Your task to perform on an android device: change timer sound Image 0: 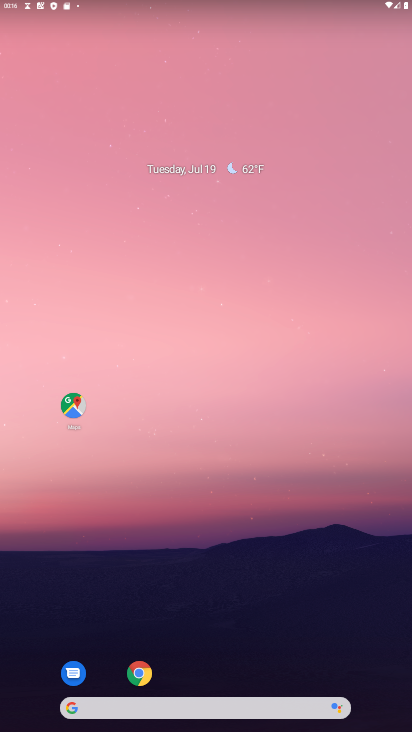
Step 0: drag from (262, 670) to (248, 111)
Your task to perform on an android device: change timer sound Image 1: 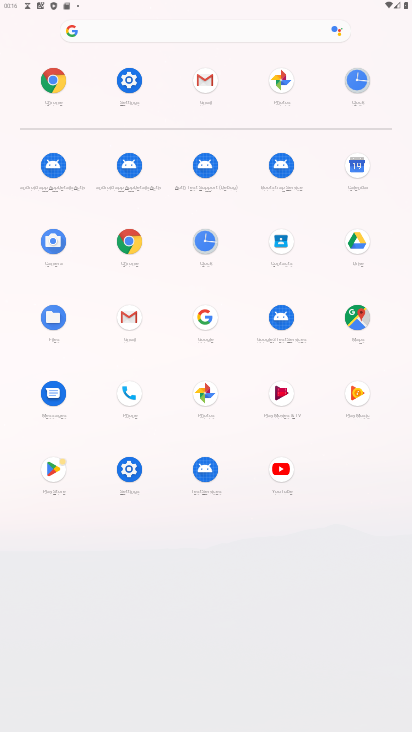
Step 1: click (211, 239)
Your task to perform on an android device: change timer sound Image 2: 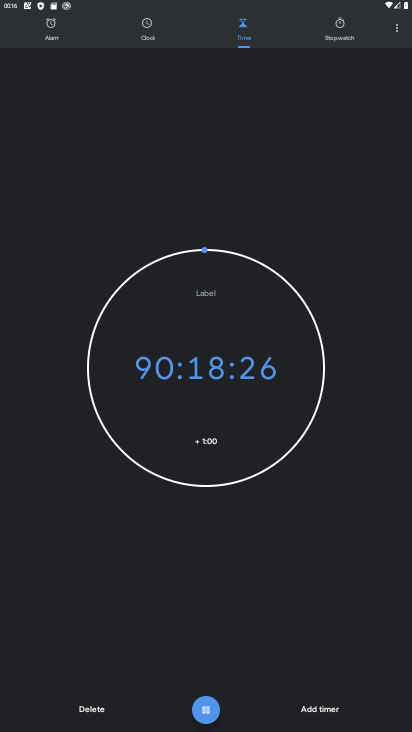
Step 2: click (402, 27)
Your task to perform on an android device: change timer sound Image 3: 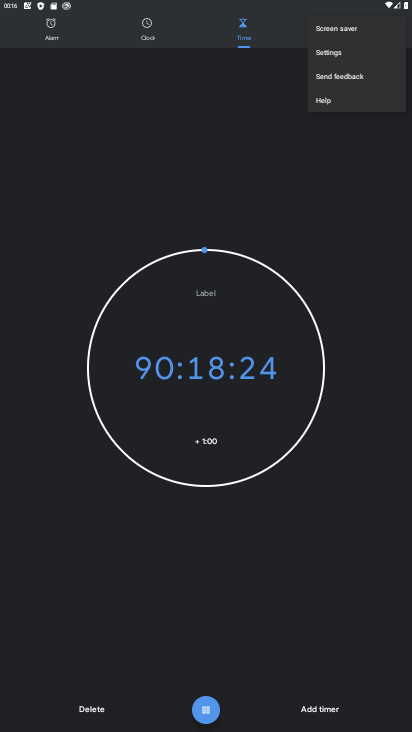
Step 3: click (342, 52)
Your task to perform on an android device: change timer sound Image 4: 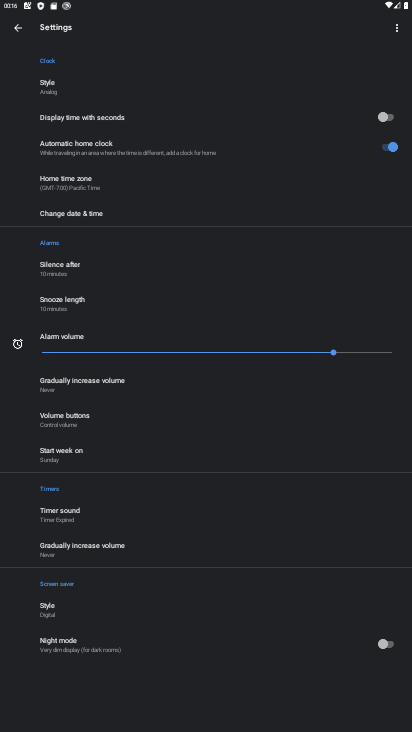
Step 4: click (80, 506)
Your task to perform on an android device: change timer sound Image 5: 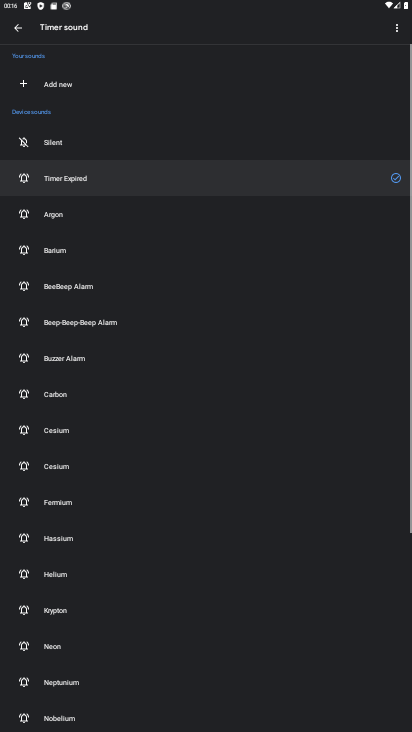
Step 5: drag from (133, 554) to (130, 294)
Your task to perform on an android device: change timer sound Image 6: 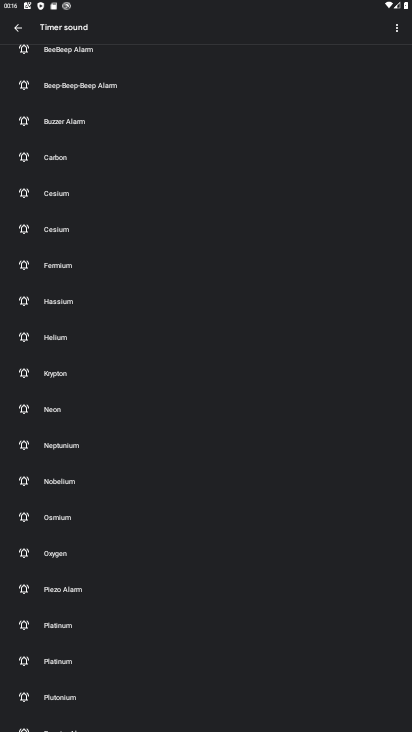
Step 6: click (46, 502)
Your task to perform on an android device: change timer sound Image 7: 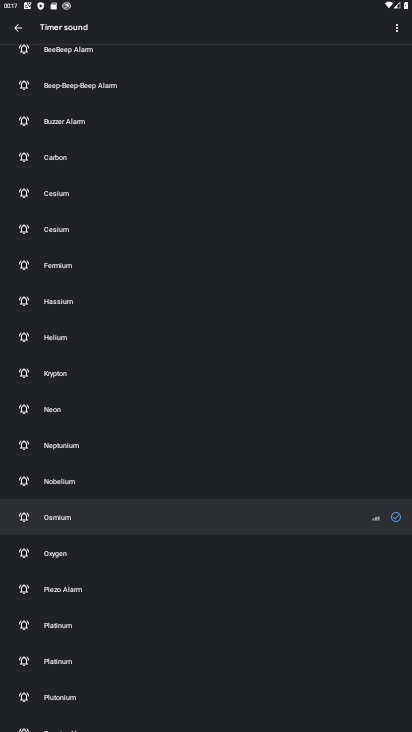
Step 7: task complete